Your task to perform on an android device: Open the map Image 0: 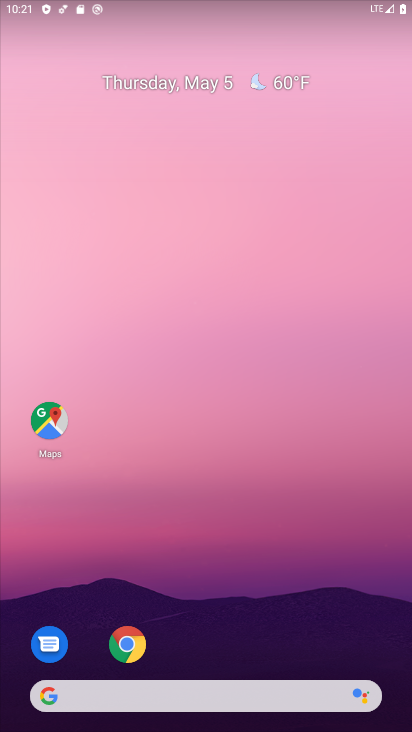
Step 0: drag from (305, 607) to (309, 148)
Your task to perform on an android device: Open the map Image 1: 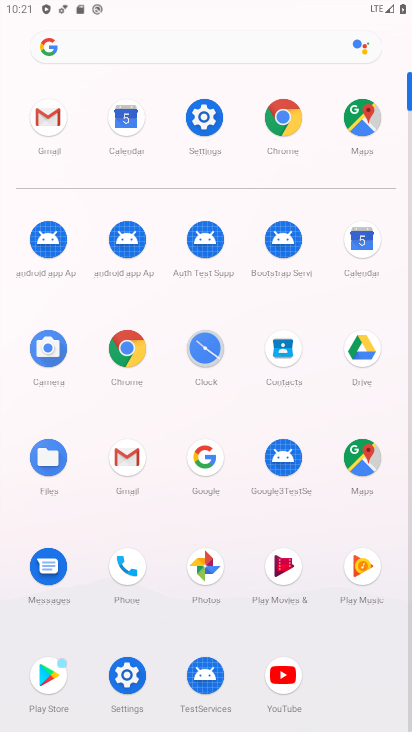
Step 1: click (356, 468)
Your task to perform on an android device: Open the map Image 2: 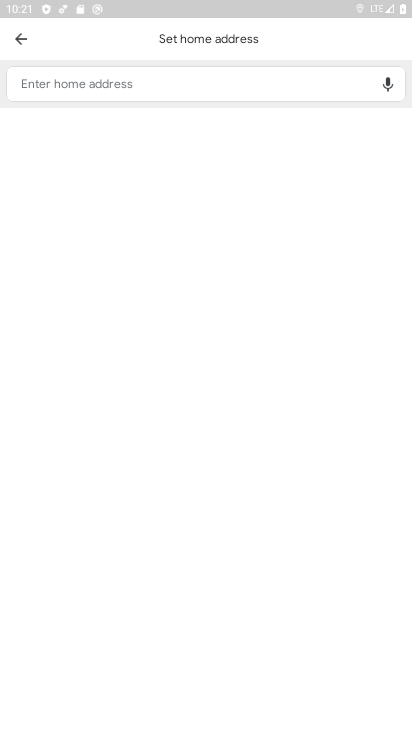
Step 2: click (15, 43)
Your task to perform on an android device: Open the map Image 3: 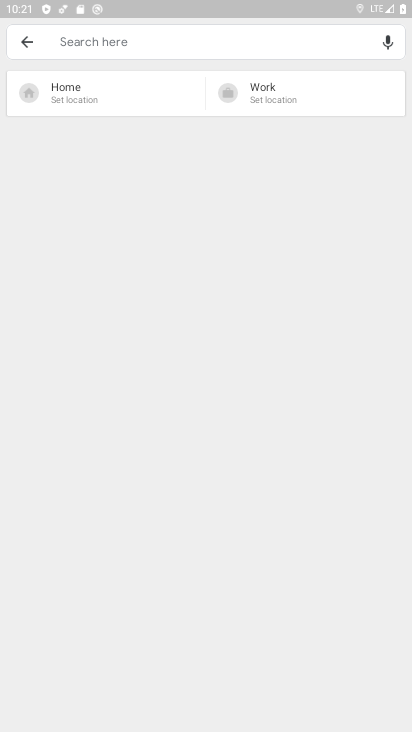
Step 3: click (15, 43)
Your task to perform on an android device: Open the map Image 4: 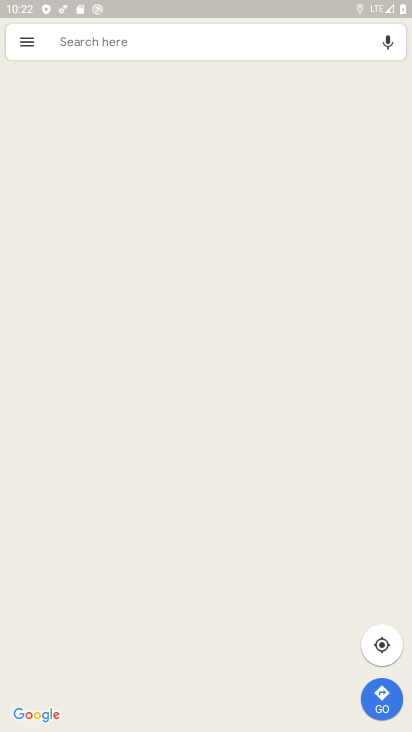
Step 4: task complete